Your task to perform on an android device: turn off airplane mode Image 0: 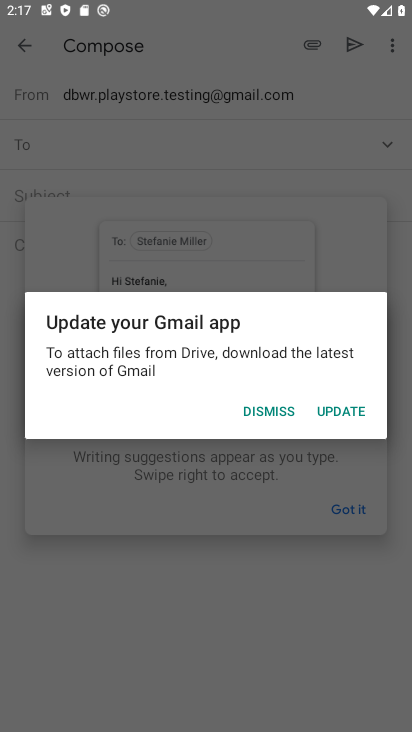
Step 0: press back button
Your task to perform on an android device: turn off airplane mode Image 1: 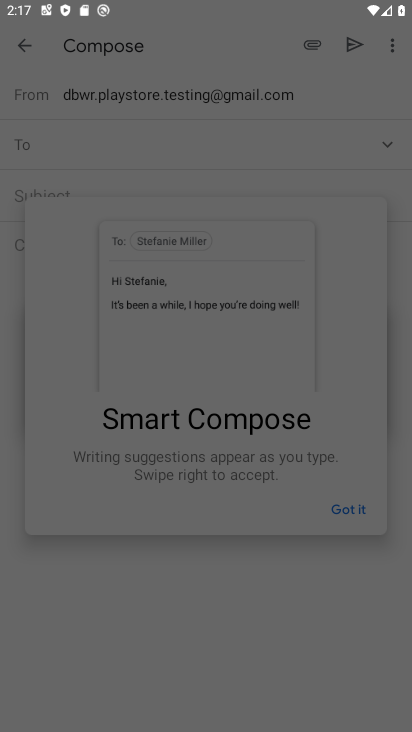
Step 1: press back button
Your task to perform on an android device: turn off airplane mode Image 2: 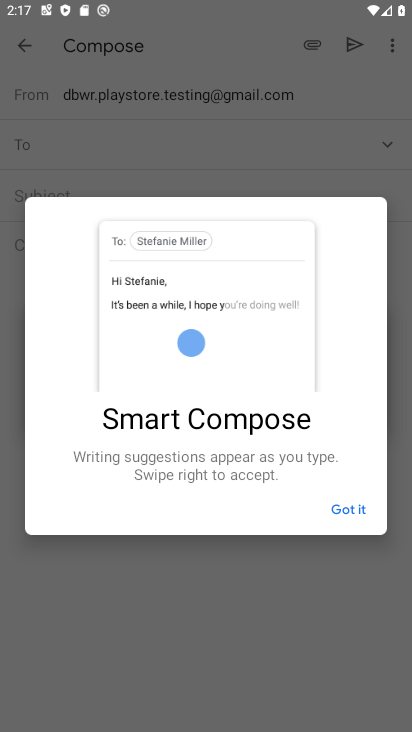
Step 2: press home button
Your task to perform on an android device: turn off airplane mode Image 3: 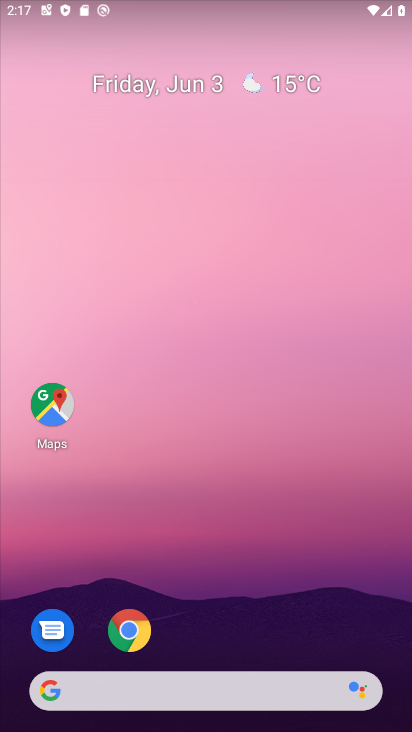
Step 3: drag from (238, 627) to (224, 28)
Your task to perform on an android device: turn off airplane mode Image 4: 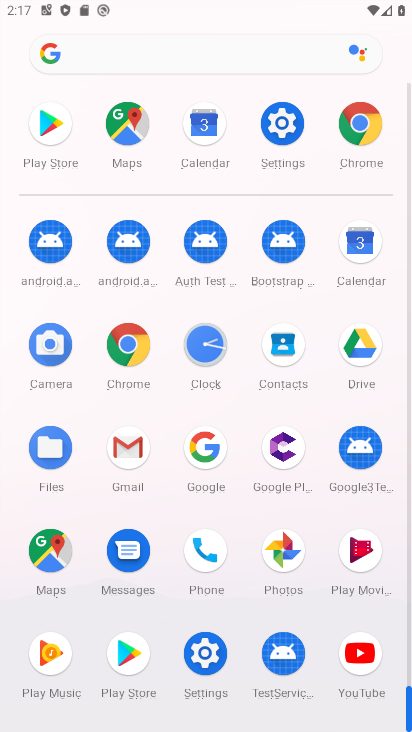
Step 4: click (205, 651)
Your task to perform on an android device: turn off airplane mode Image 5: 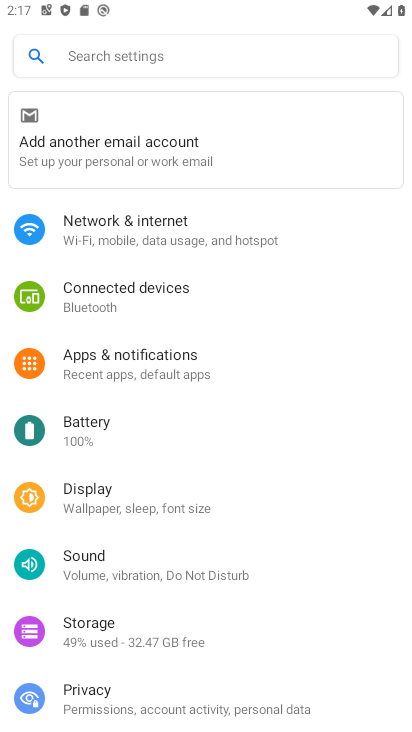
Step 5: click (184, 241)
Your task to perform on an android device: turn off airplane mode Image 6: 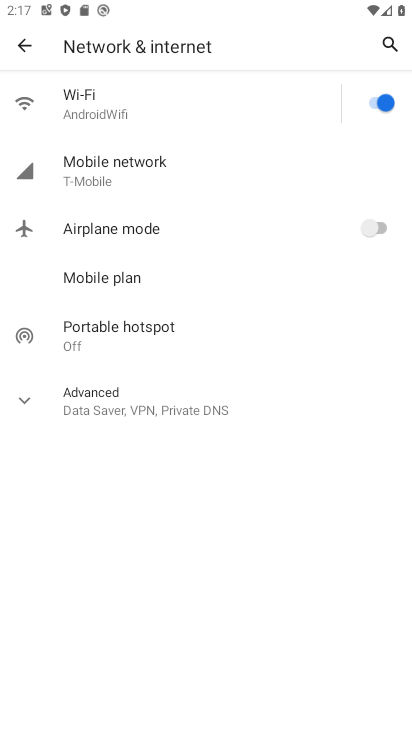
Step 6: click (59, 401)
Your task to perform on an android device: turn off airplane mode Image 7: 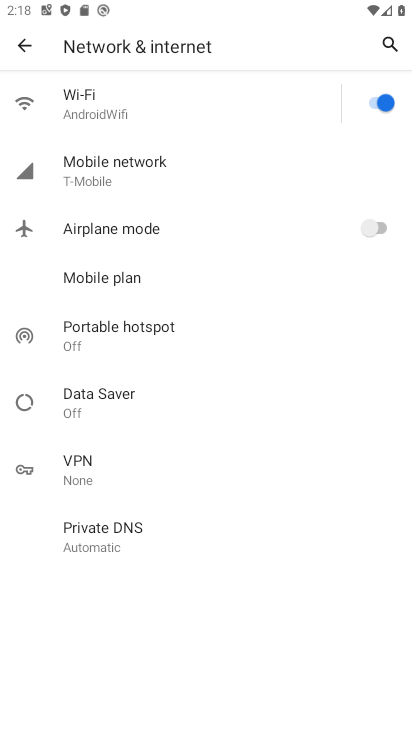
Step 7: task complete